Your task to perform on an android device: search for starred emails in the gmail app Image 0: 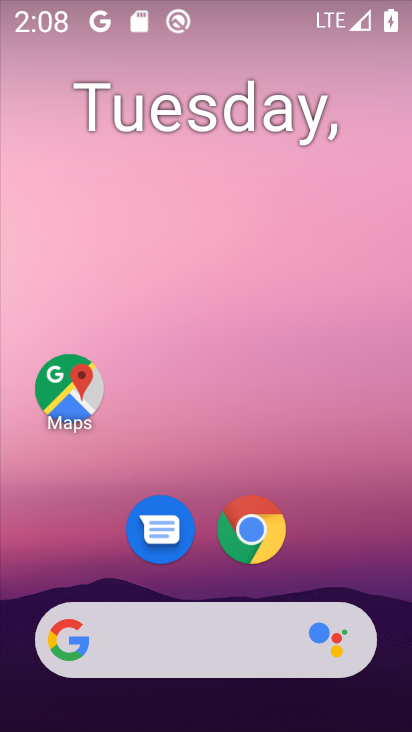
Step 0: drag from (366, 589) to (312, 105)
Your task to perform on an android device: search for starred emails in the gmail app Image 1: 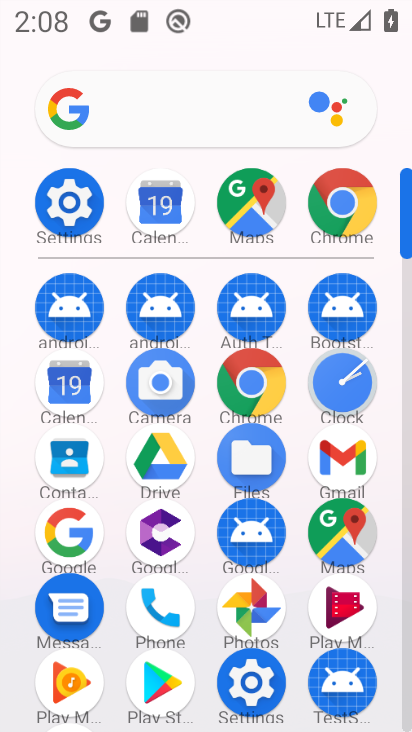
Step 1: click (345, 472)
Your task to perform on an android device: search for starred emails in the gmail app Image 2: 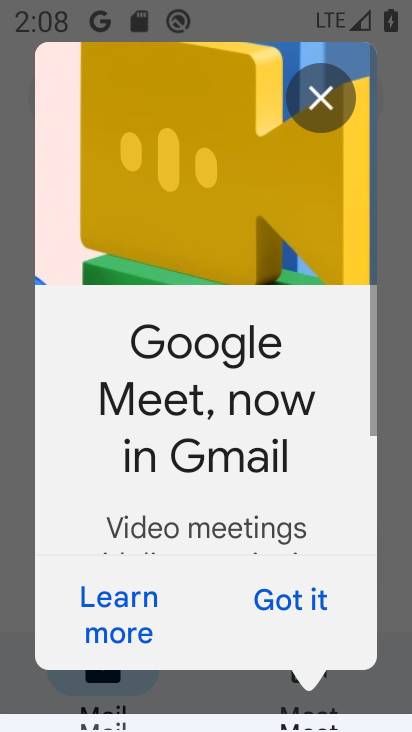
Step 2: click (67, 96)
Your task to perform on an android device: search for starred emails in the gmail app Image 3: 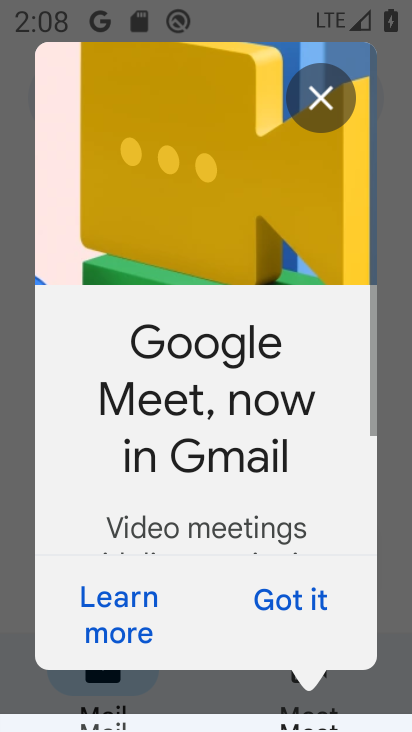
Step 3: click (268, 591)
Your task to perform on an android device: search for starred emails in the gmail app Image 4: 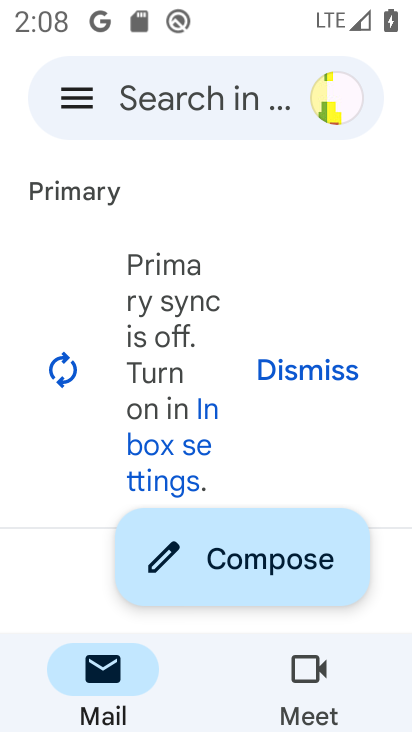
Step 4: click (72, 102)
Your task to perform on an android device: search for starred emails in the gmail app Image 5: 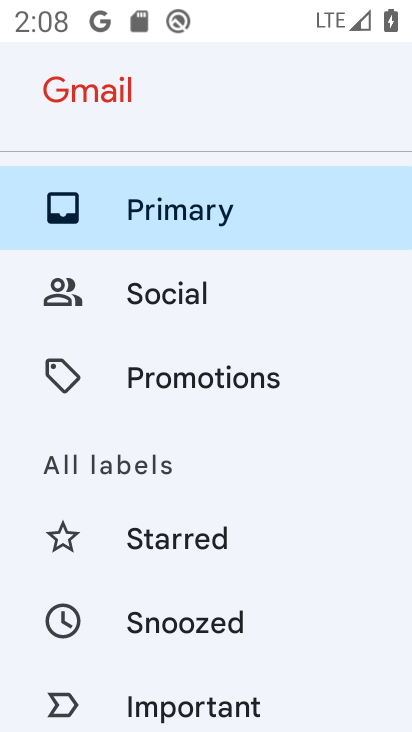
Step 5: click (164, 546)
Your task to perform on an android device: search for starred emails in the gmail app Image 6: 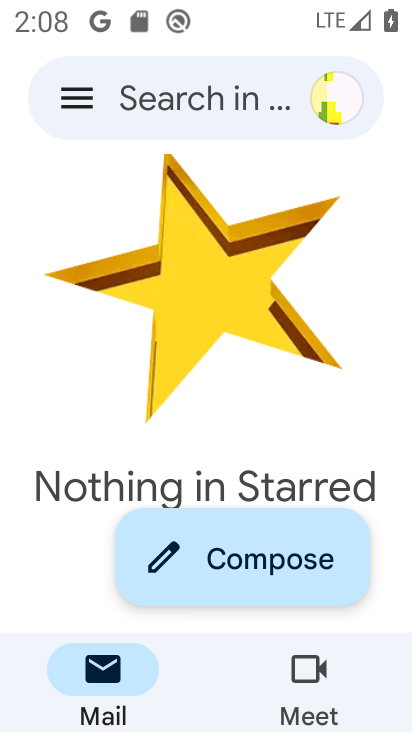
Step 6: task complete